Your task to perform on an android device: install app "Google Maps" Image 0: 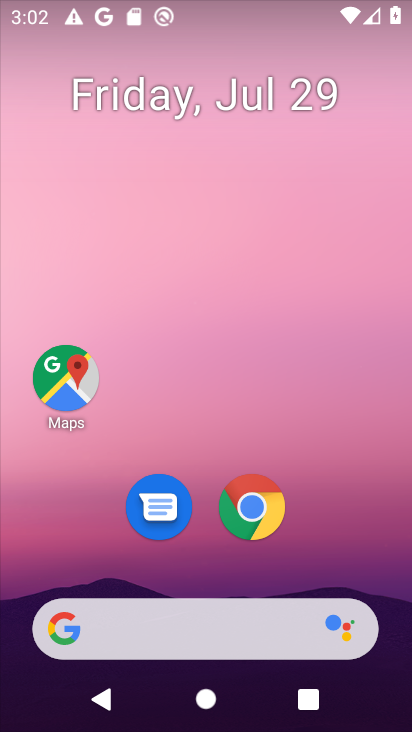
Step 0: click (27, 387)
Your task to perform on an android device: install app "Google Maps" Image 1: 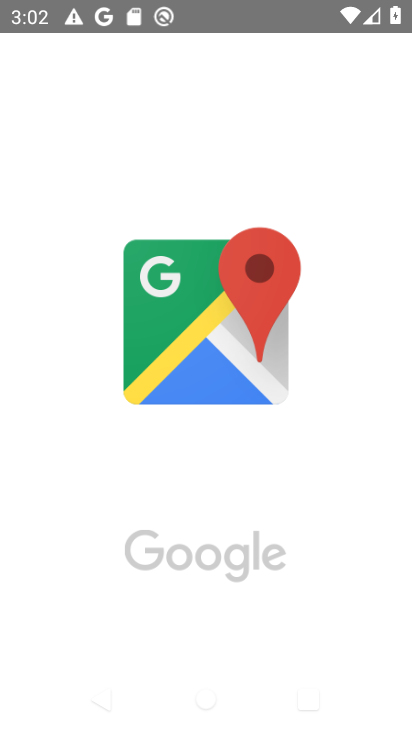
Step 1: task complete